Your task to perform on an android device: set the timer Image 0: 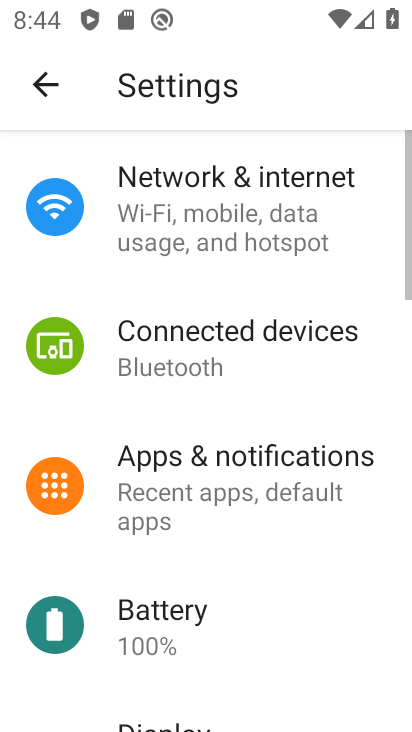
Step 0: press home button
Your task to perform on an android device: set the timer Image 1: 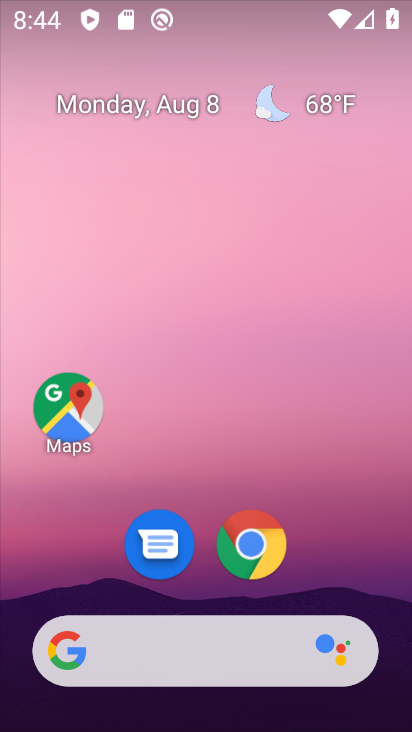
Step 1: drag from (210, 588) to (216, 145)
Your task to perform on an android device: set the timer Image 2: 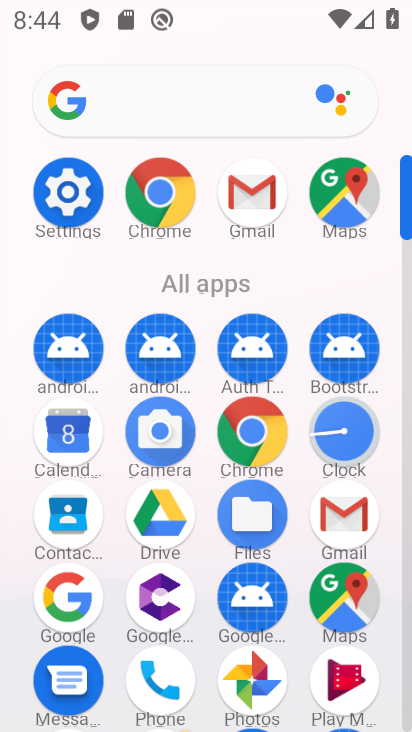
Step 2: click (342, 425)
Your task to perform on an android device: set the timer Image 3: 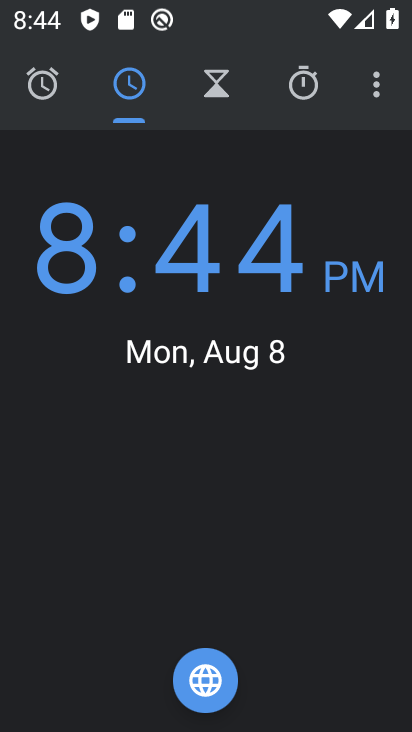
Step 3: click (375, 89)
Your task to perform on an android device: set the timer Image 4: 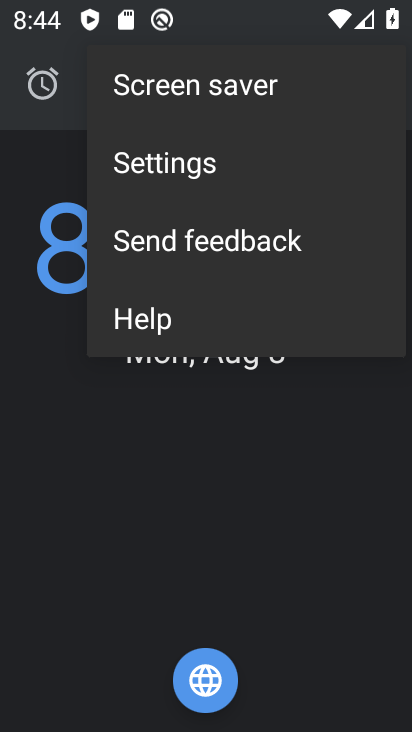
Step 4: click (148, 546)
Your task to perform on an android device: set the timer Image 5: 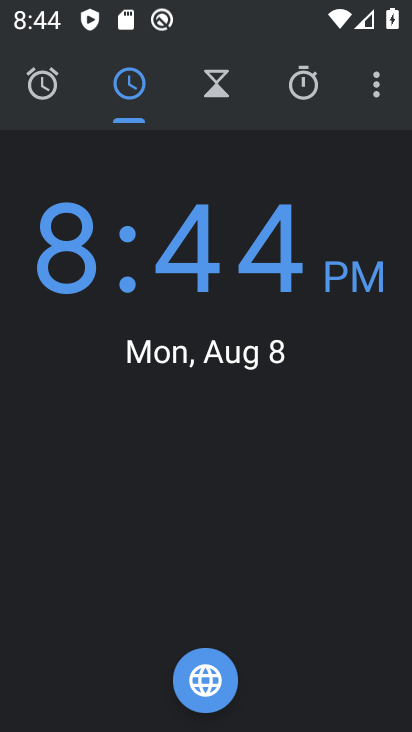
Step 5: click (216, 86)
Your task to perform on an android device: set the timer Image 6: 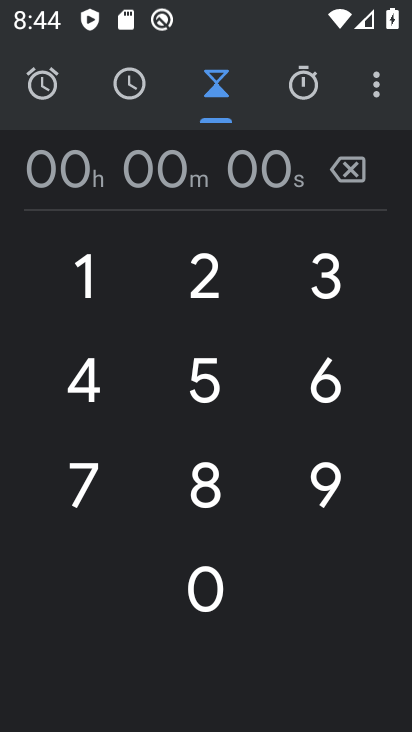
Step 6: click (330, 275)
Your task to perform on an android device: set the timer Image 7: 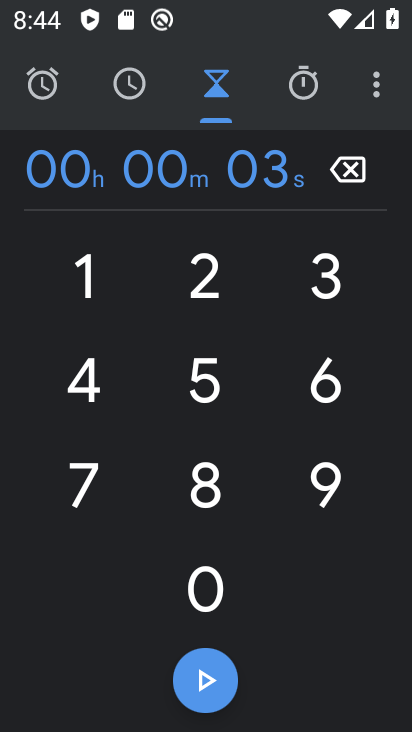
Step 7: click (202, 596)
Your task to perform on an android device: set the timer Image 8: 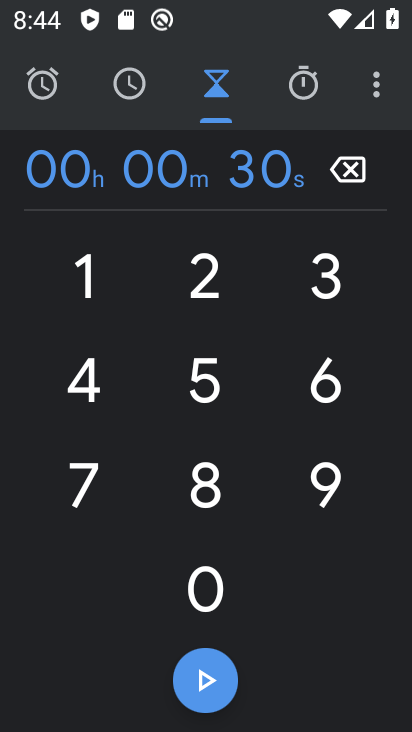
Step 8: click (202, 596)
Your task to perform on an android device: set the timer Image 9: 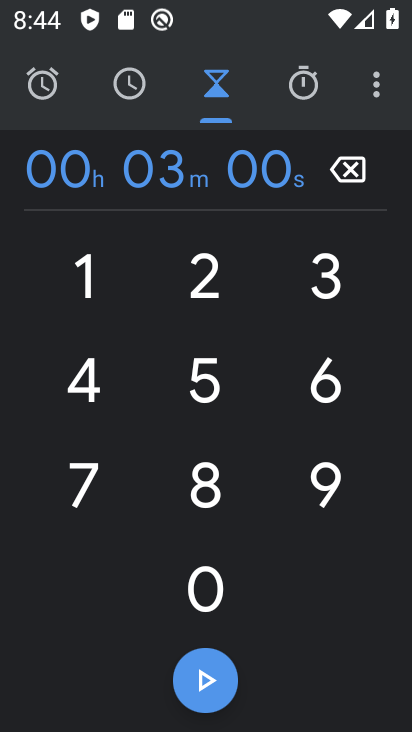
Step 9: click (202, 596)
Your task to perform on an android device: set the timer Image 10: 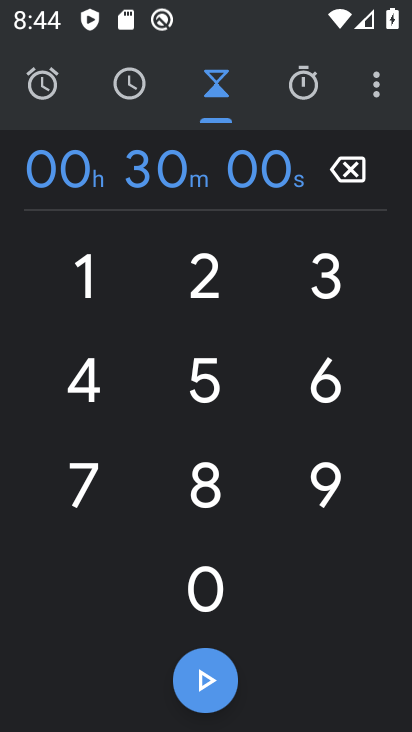
Step 10: click (207, 675)
Your task to perform on an android device: set the timer Image 11: 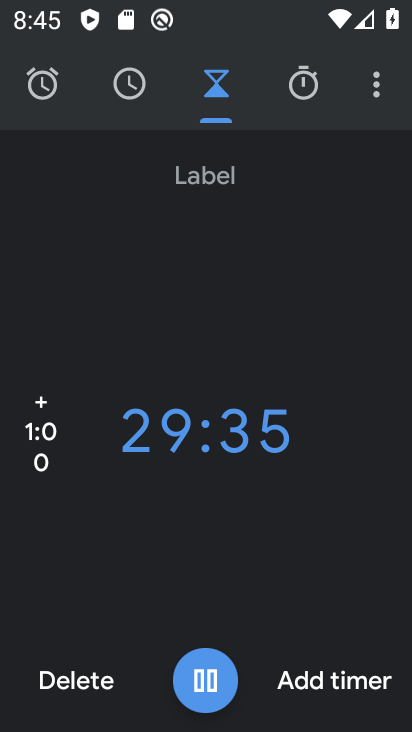
Step 11: task complete